Your task to perform on an android device: Add "razer kraken" to the cart on walmart.com, then select checkout. Image 0: 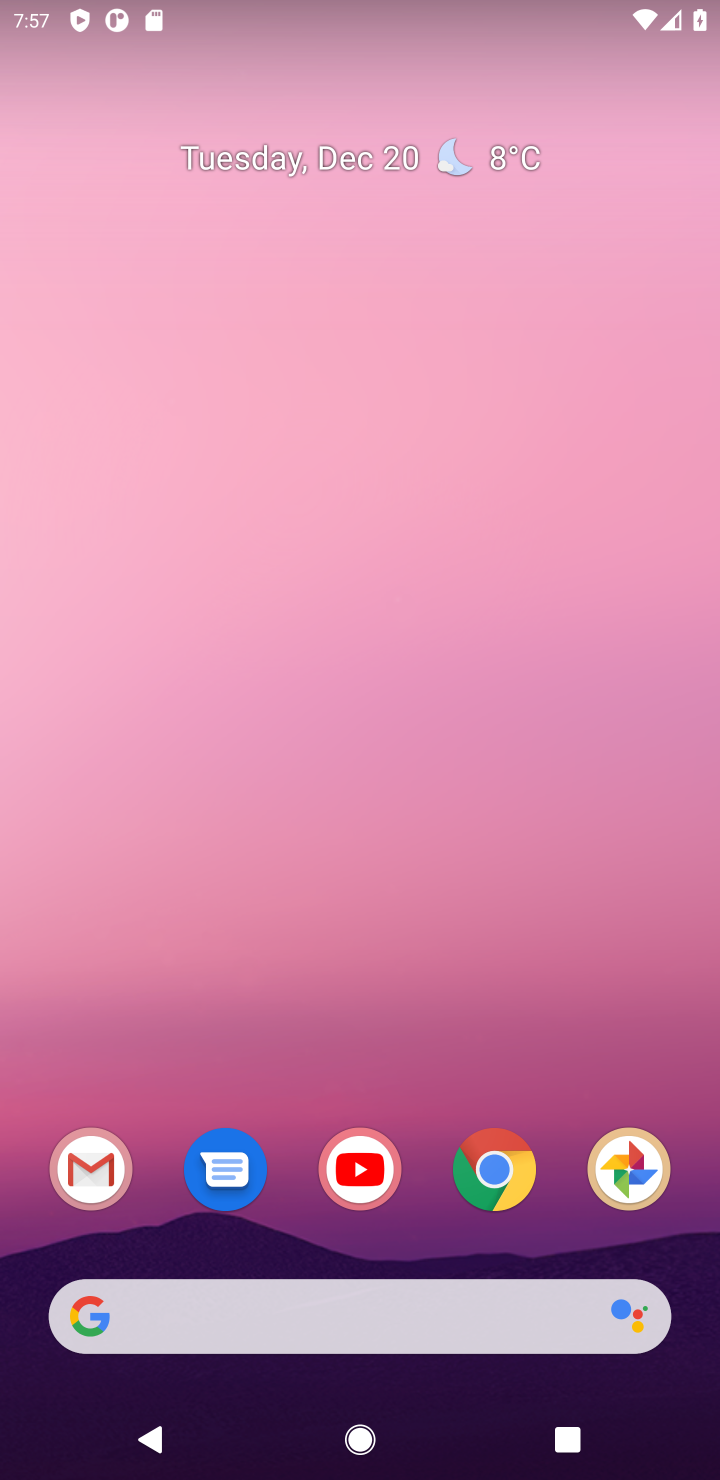
Step 0: click (496, 1195)
Your task to perform on an android device: Add "razer kraken" to the cart on walmart.com, then select checkout. Image 1: 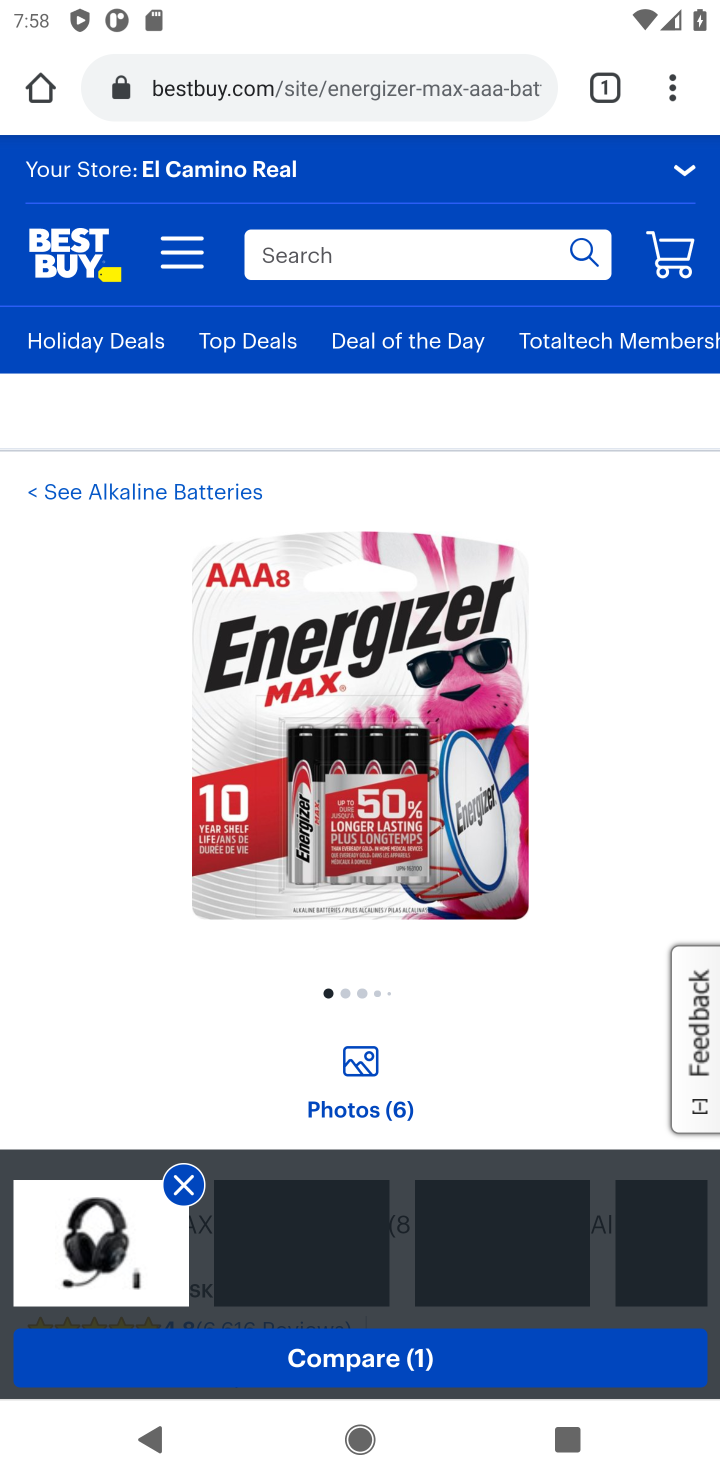
Step 1: click (343, 83)
Your task to perform on an android device: Add "razer kraken" to the cart on walmart.com, then select checkout. Image 2: 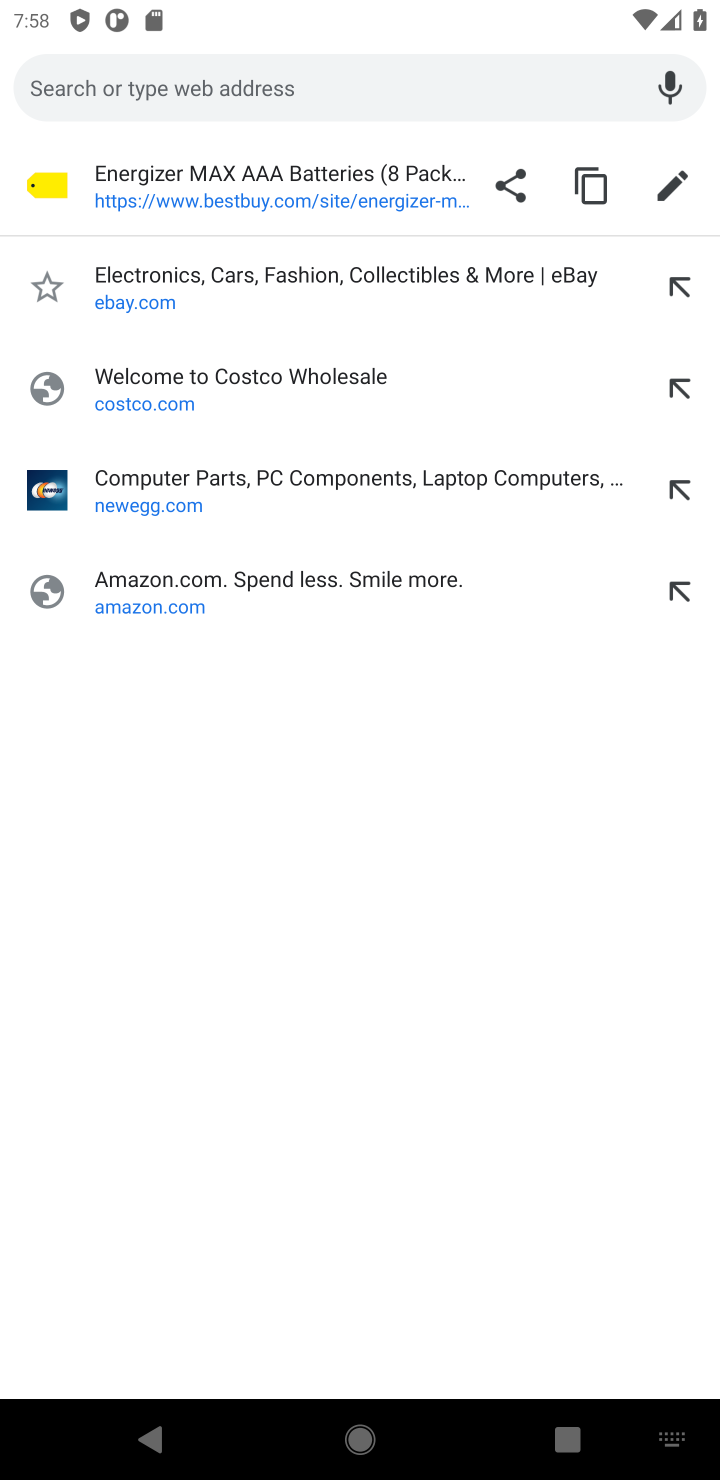
Step 2: type "walmart'"
Your task to perform on an android device: Add "razer kraken" to the cart on walmart.com, then select checkout. Image 3: 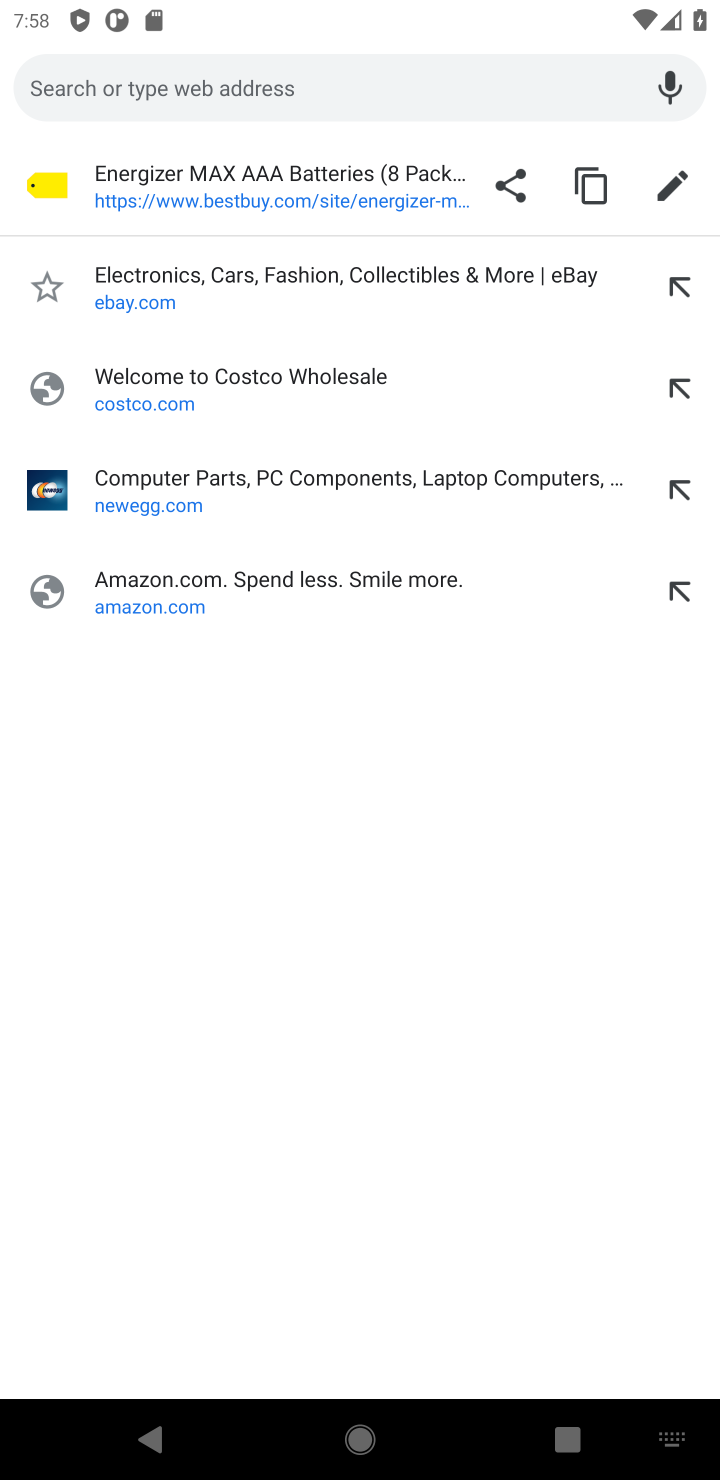
Step 3: type "walmart"
Your task to perform on an android device: Add "razer kraken" to the cart on walmart.com, then select checkout. Image 4: 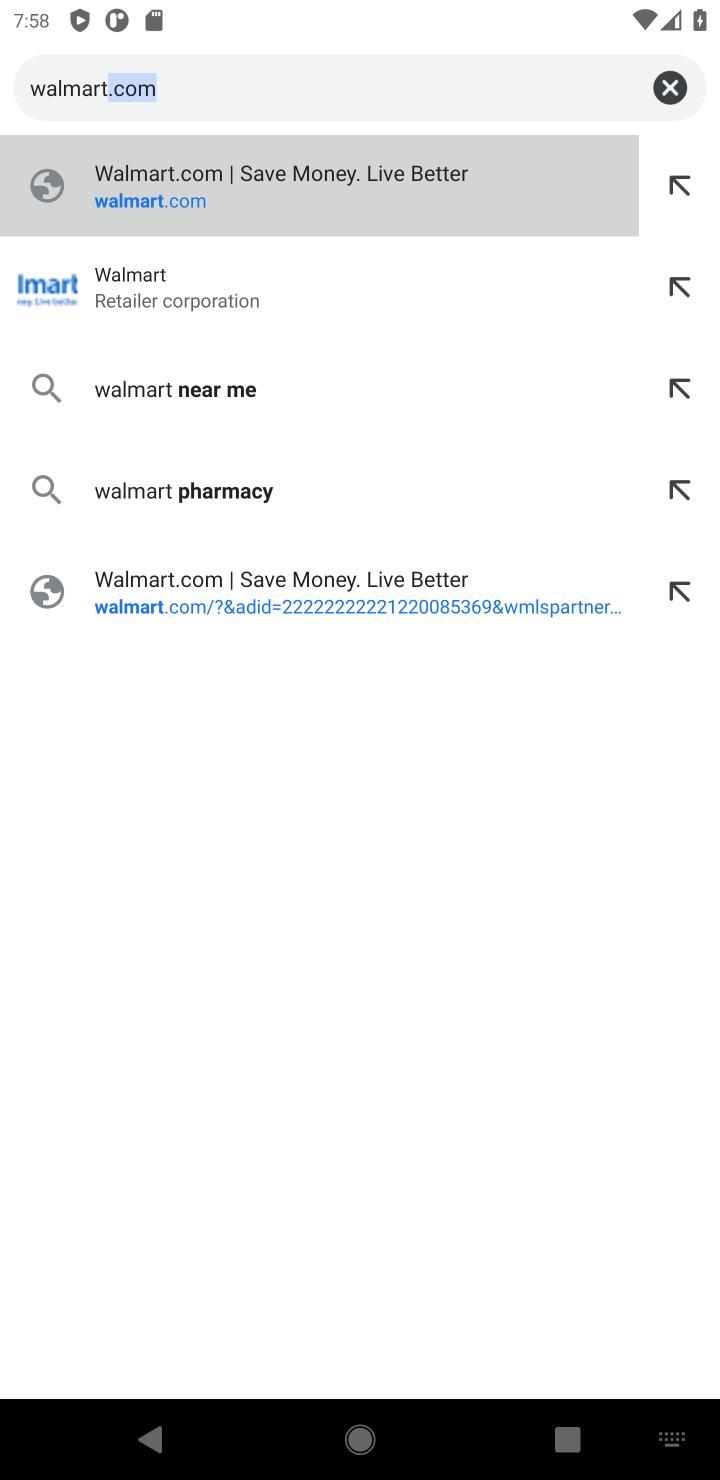
Step 4: type "wa"
Your task to perform on an android device: Add "razer kraken" to the cart on walmart.com, then select checkout. Image 5: 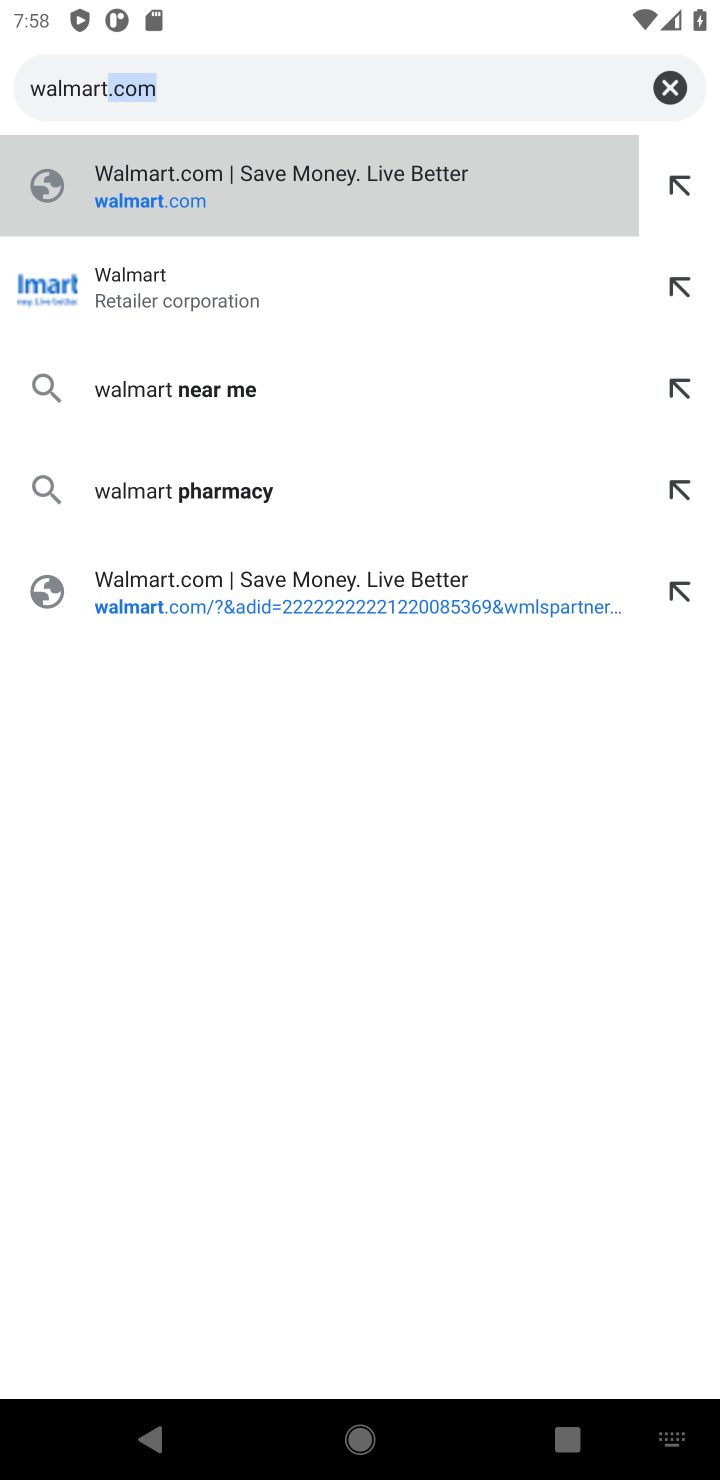
Step 5: click (249, 198)
Your task to perform on an android device: Add "razer kraken" to the cart on walmart.com, then select checkout. Image 6: 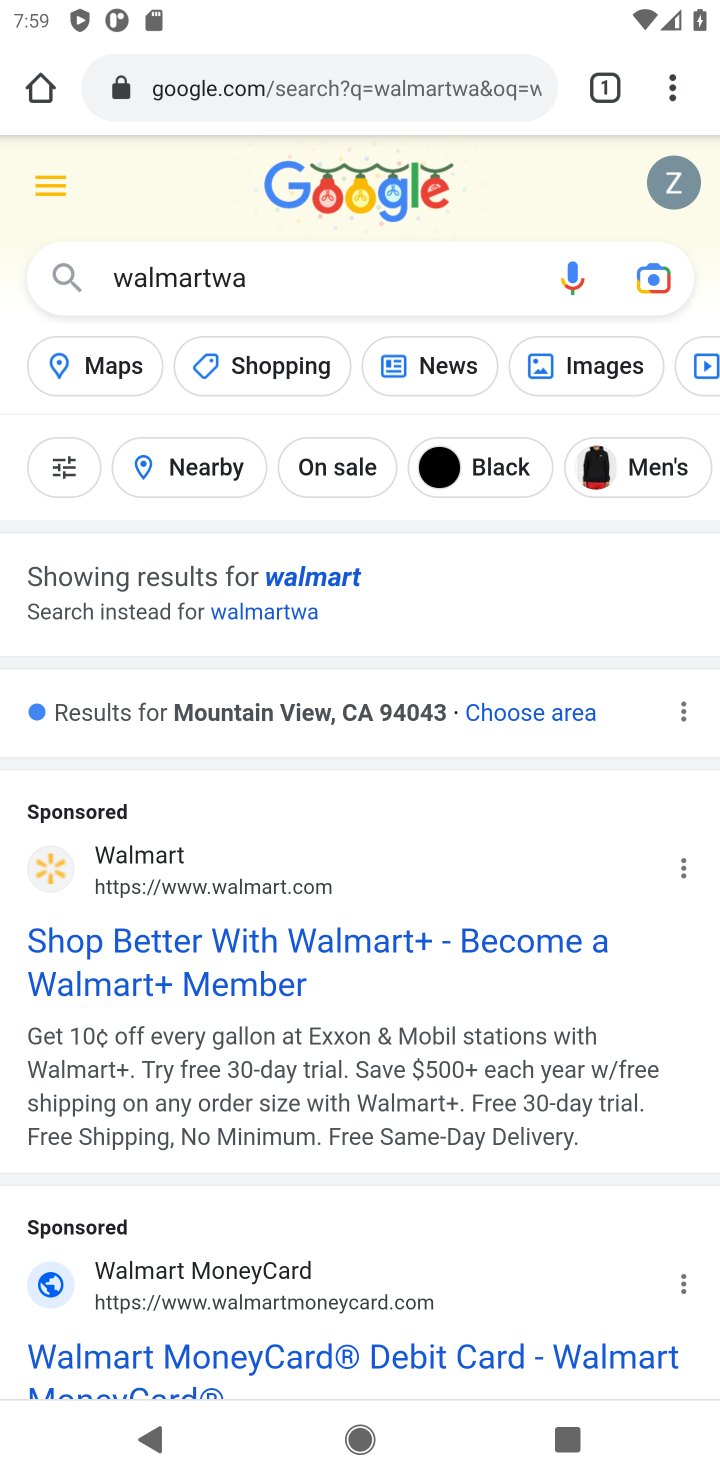
Step 6: click (206, 998)
Your task to perform on an android device: Add "razer kraken" to the cart on walmart.com, then select checkout. Image 7: 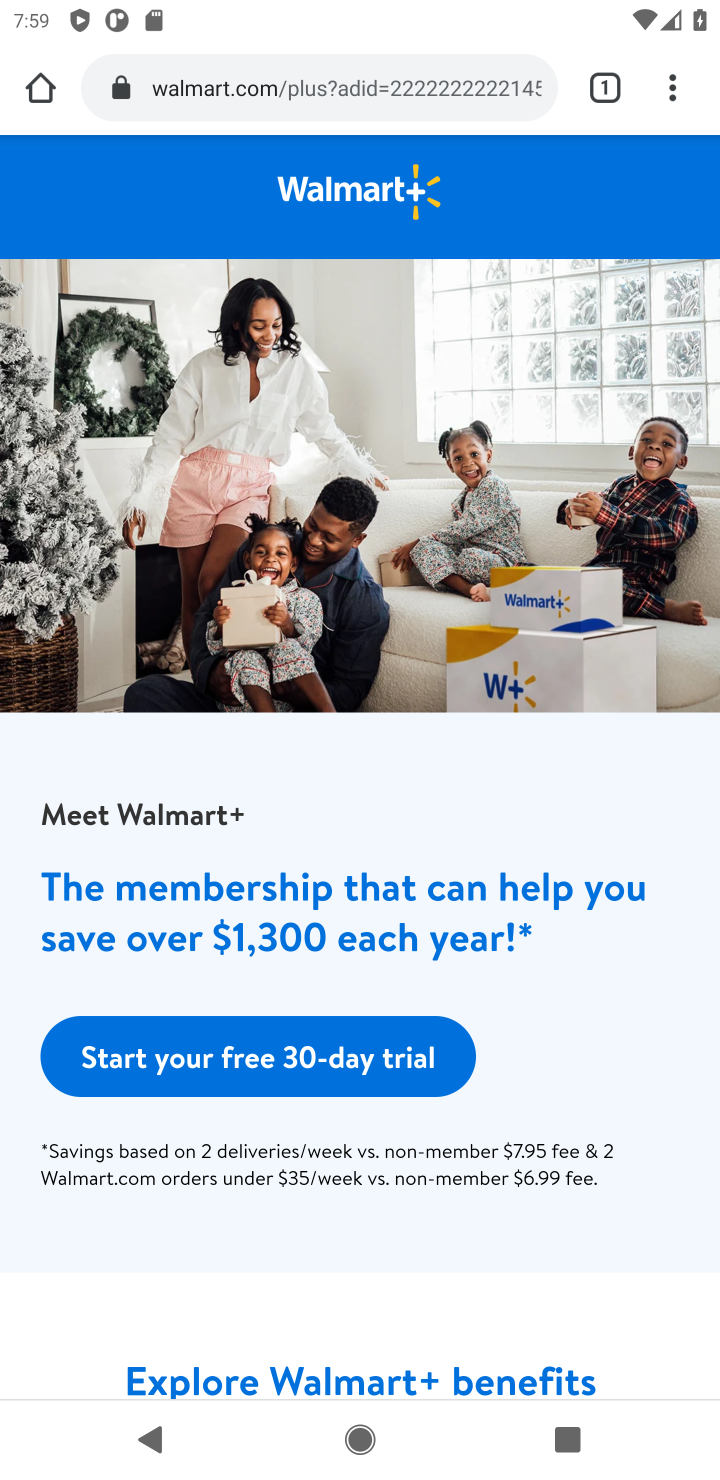
Step 7: task complete